Your task to perform on an android device: Open ESPN.com Image 0: 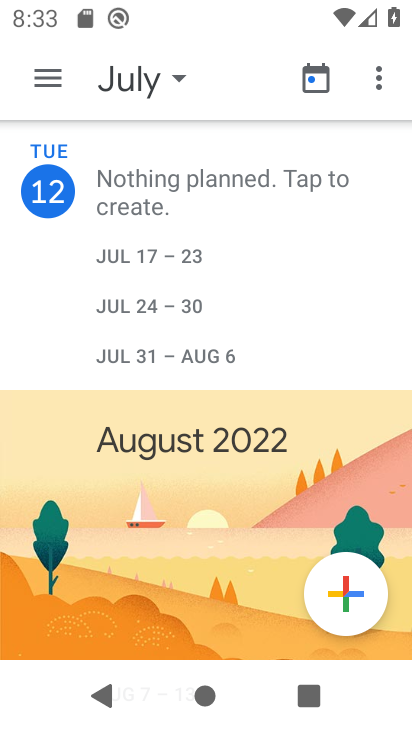
Step 0: press home button
Your task to perform on an android device: Open ESPN.com Image 1: 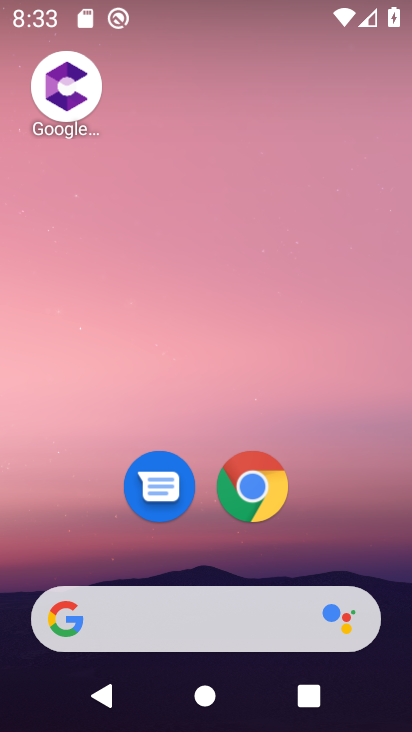
Step 1: drag from (335, 601) to (370, 106)
Your task to perform on an android device: Open ESPN.com Image 2: 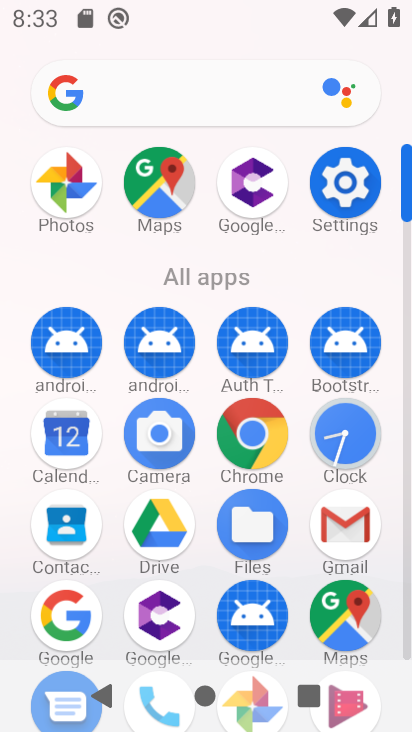
Step 2: click (261, 445)
Your task to perform on an android device: Open ESPN.com Image 3: 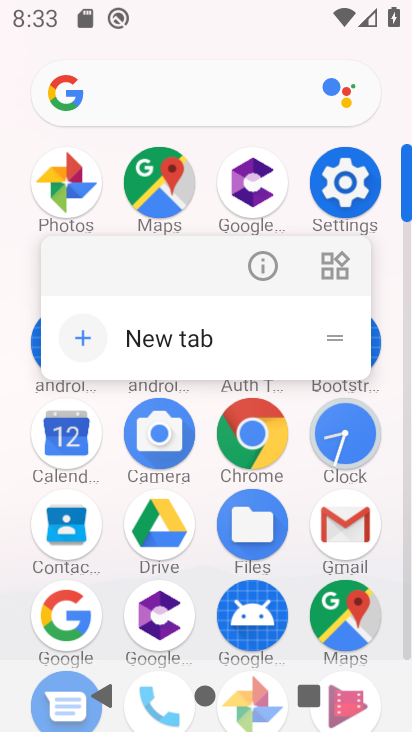
Step 3: click (264, 443)
Your task to perform on an android device: Open ESPN.com Image 4: 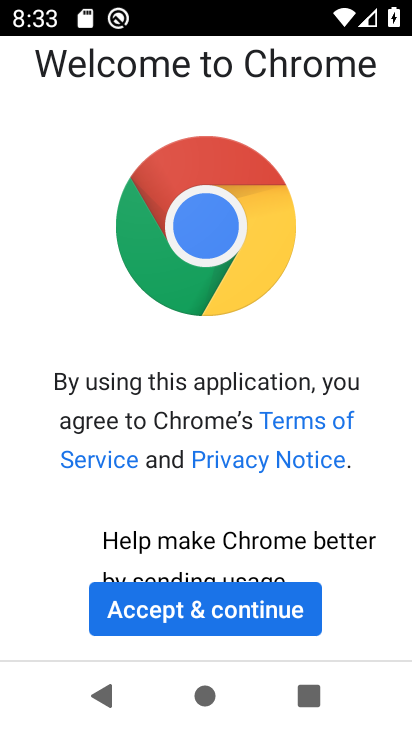
Step 4: click (260, 598)
Your task to perform on an android device: Open ESPN.com Image 5: 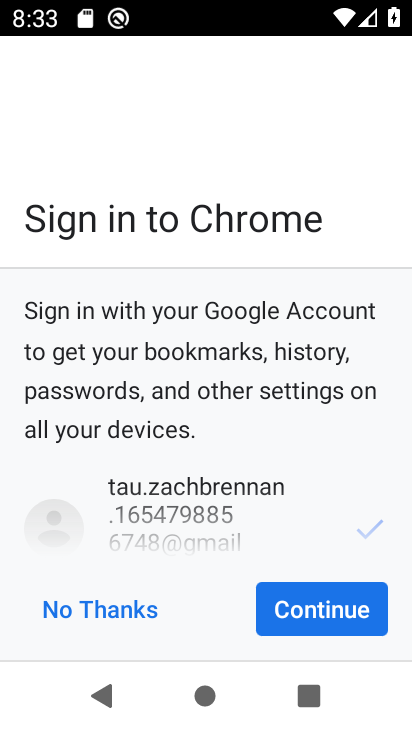
Step 5: click (347, 625)
Your task to perform on an android device: Open ESPN.com Image 6: 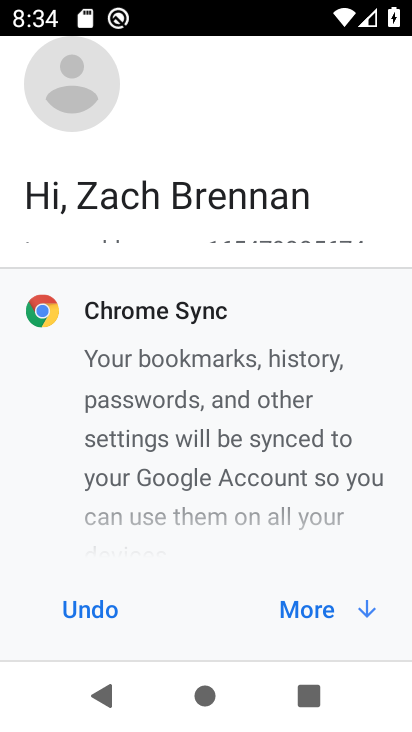
Step 6: click (362, 624)
Your task to perform on an android device: Open ESPN.com Image 7: 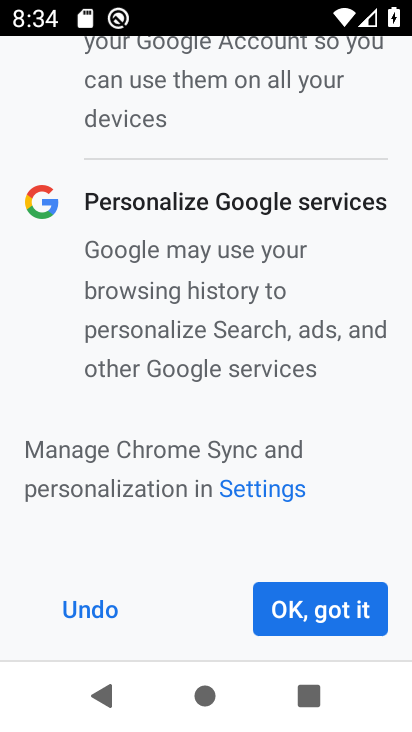
Step 7: click (379, 612)
Your task to perform on an android device: Open ESPN.com Image 8: 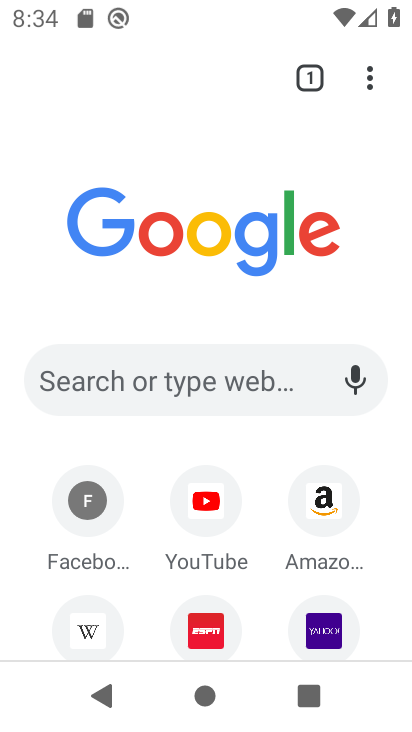
Step 8: drag from (250, 584) to (268, 337)
Your task to perform on an android device: Open ESPN.com Image 9: 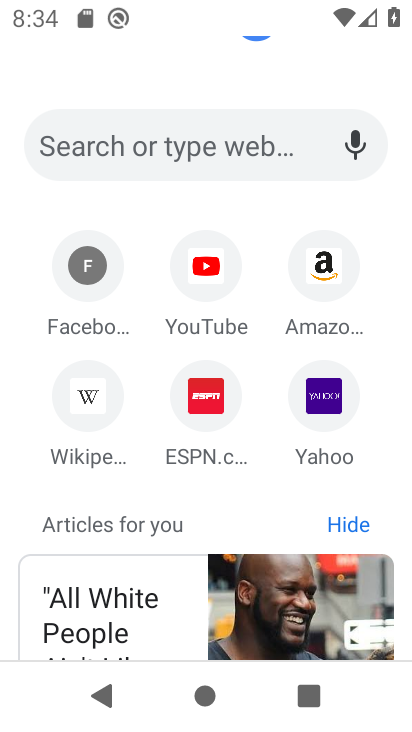
Step 9: click (219, 407)
Your task to perform on an android device: Open ESPN.com Image 10: 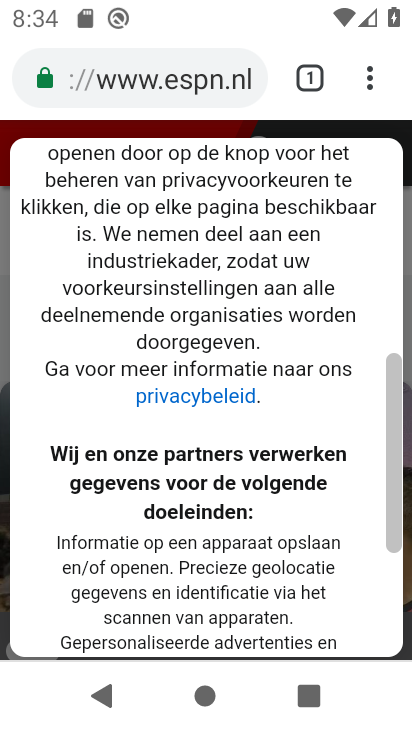
Step 10: task complete